Your task to perform on an android device: Open settings on Google Maps Image 0: 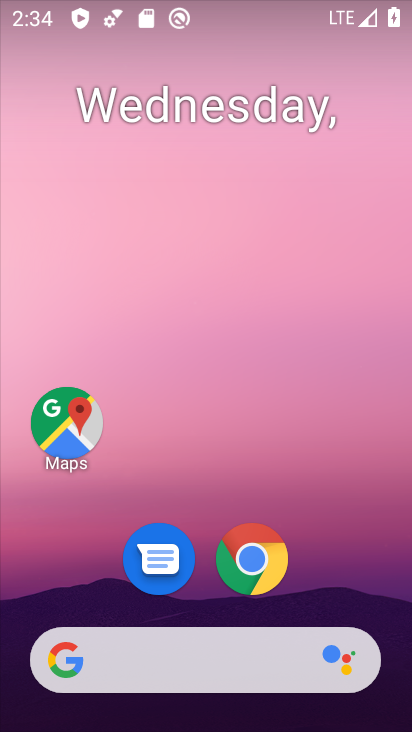
Step 0: drag from (351, 507) to (350, 171)
Your task to perform on an android device: Open settings on Google Maps Image 1: 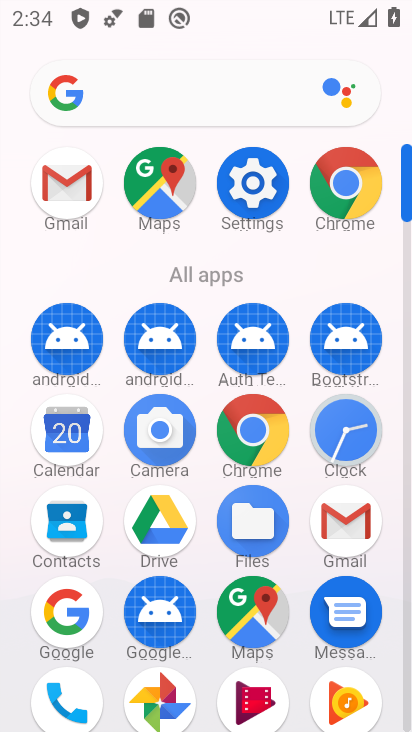
Step 1: click (234, 617)
Your task to perform on an android device: Open settings on Google Maps Image 2: 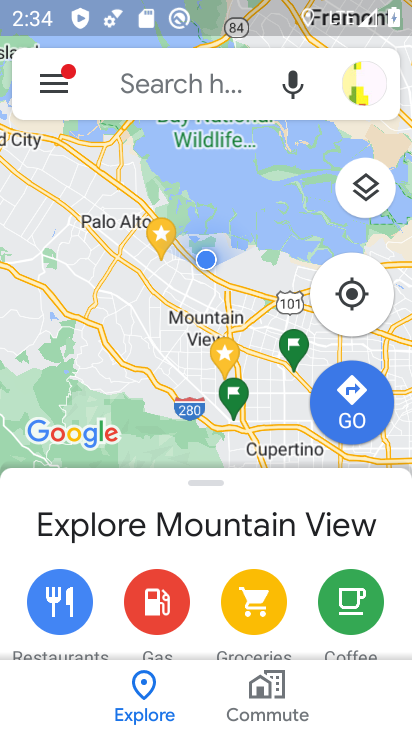
Step 2: click (66, 84)
Your task to perform on an android device: Open settings on Google Maps Image 3: 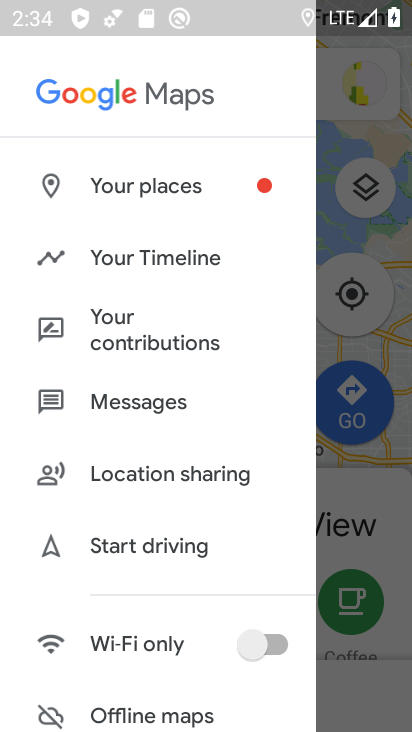
Step 3: click (110, 260)
Your task to perform on an android device: Open settings on Google Maps Image 4: 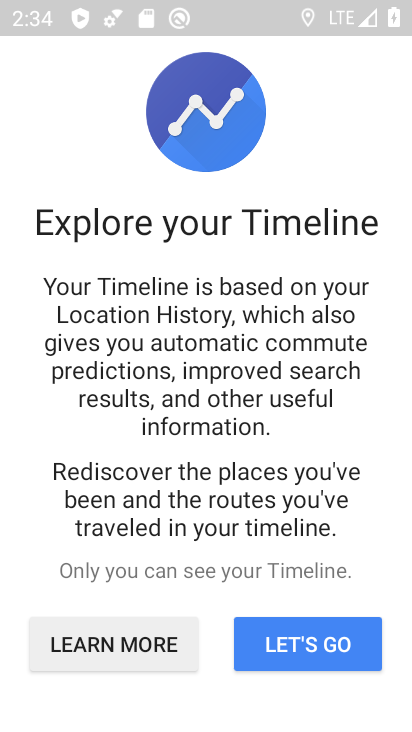
Step 4: click (315, 647)
Your task to perform on an android device: Open settings on Google Maps Image 5: 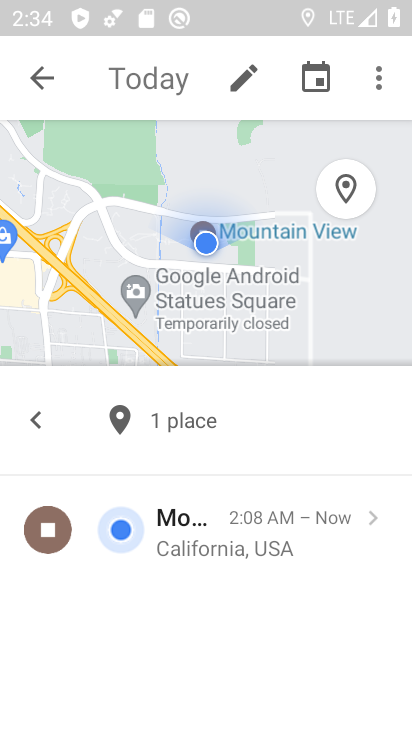
Step 5: click (383, 83)
Your task to perform on an android device: Open settings on Google Maps Image 6: 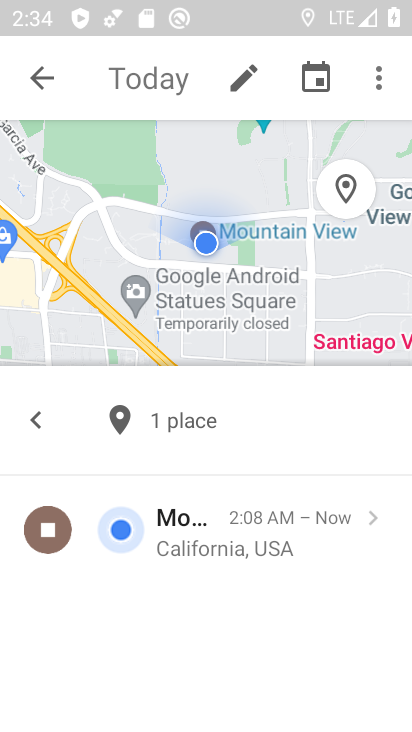
Step 6: click (382, 89)
Your task to perform on an android device: Open settings on Google Maps Image 7: 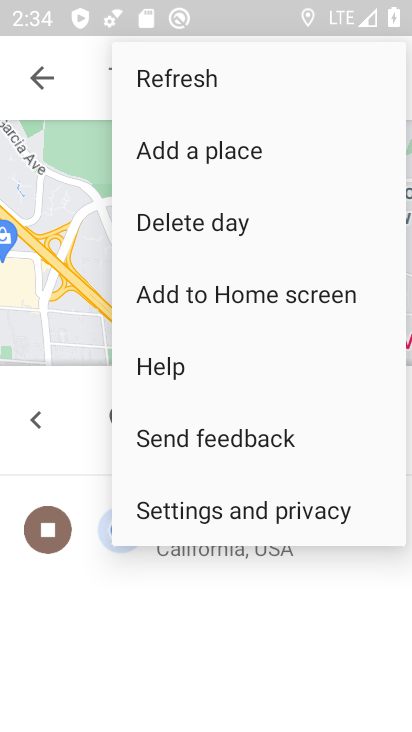
Step 7: click (221, 517)
Your task to perform on an android device: Open settings on Google Maps Image 8: 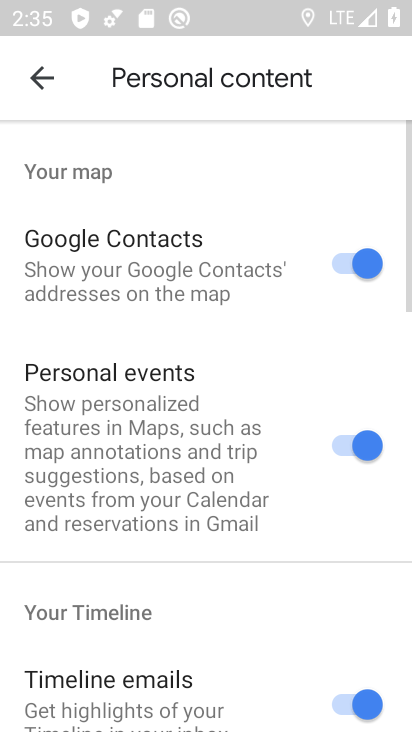
Step 8: task complete